Your task to perform on an android device: find which apps use the phone's location Image 0: 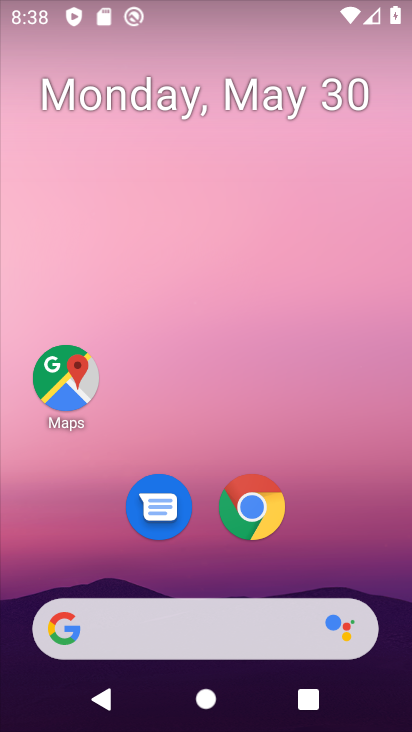
Step 0: drag from (303, 545) to (295, 62)
Your task to perform on an android device: find which apps use the phone's location Image 1: 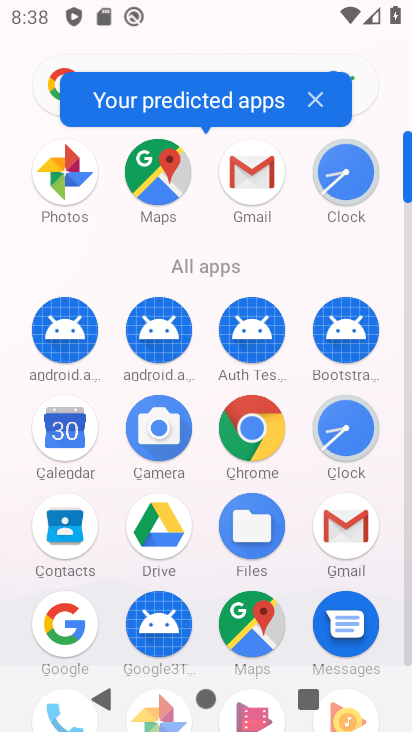
Step 1: drag from (202, 594) to (229, 356)
Your task to perform on an android device: find which apps use the phone's location Image 2: 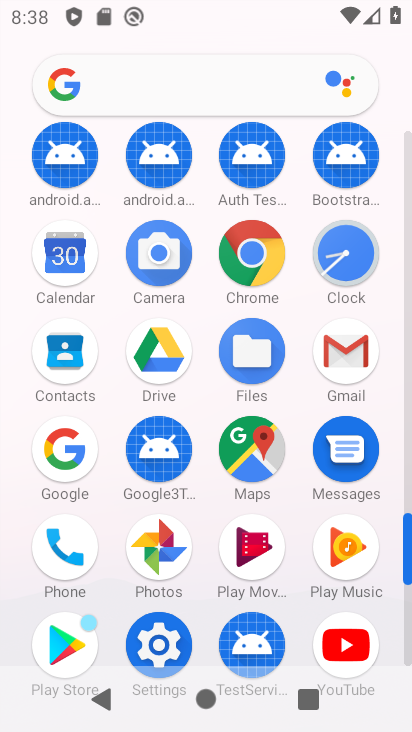
Step 2: click (151, 632)
Your task to perform on an android device: find which apps use the phone's location Image 3: 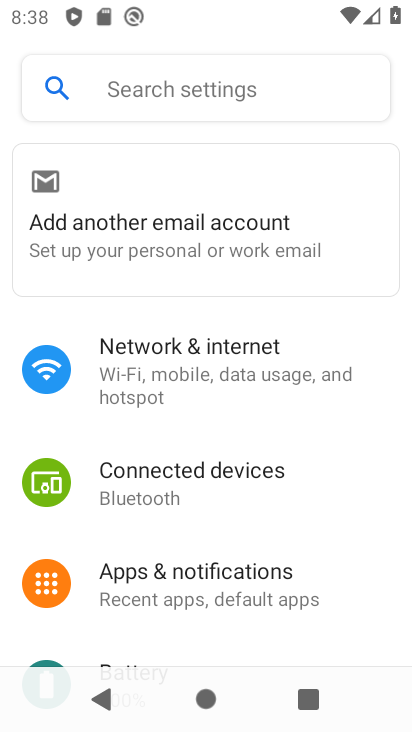
Step 3: drag from (184, 595) to (221, 416)
Your task to perform on an android device: find which apps use the phone's location Image 4: 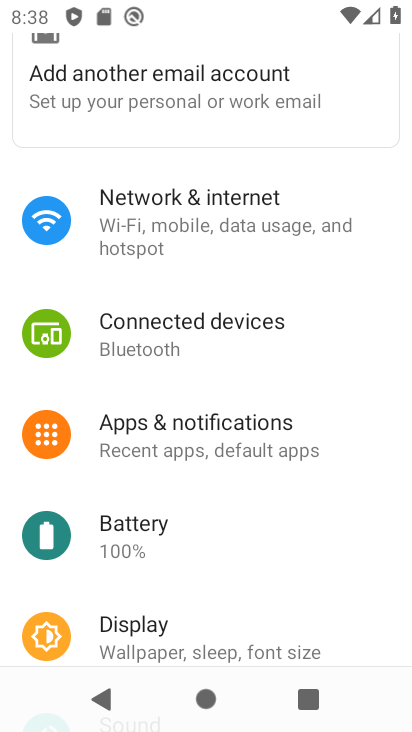
Step 4: drag from (186, 553) to (186, 286)
Your task to perform on an android device: find which apps use the phone's location Image 5: 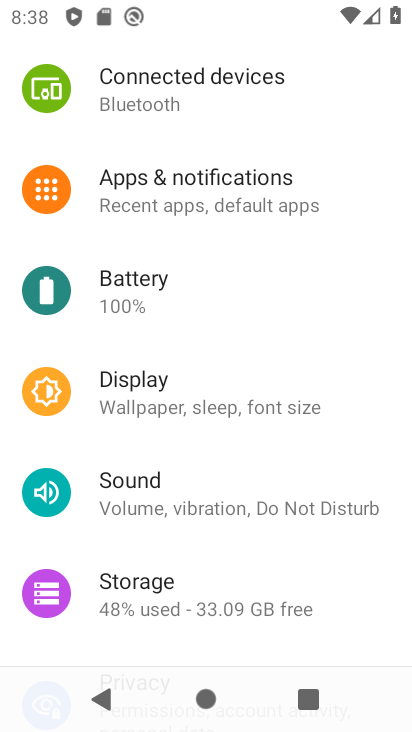
Step 5: drag from (177, 573) to (193, 396)
Your task to perform on an android device: find which apps use the phone's location Image 6: 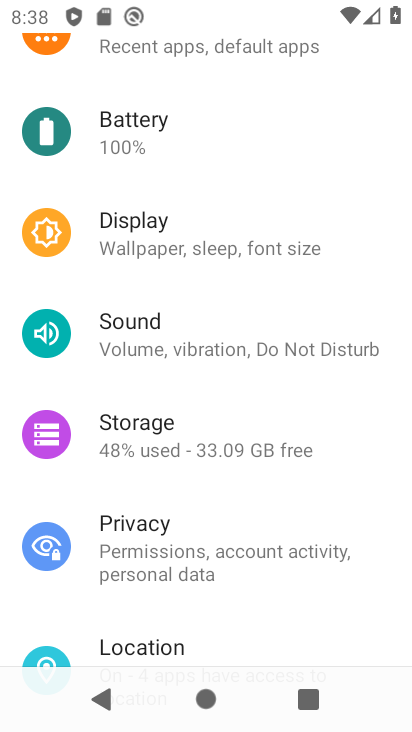
Step 6: drag from (164, 615) to (183, 410)
Your task to perform on an android device: find which apps use the phone's location Image 7: 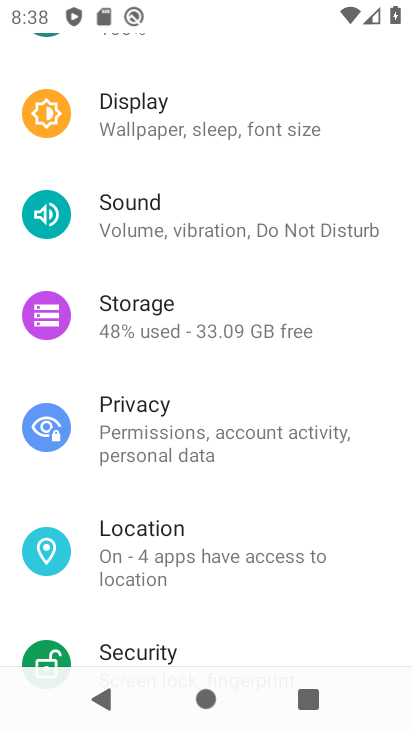
Step 7: click (140, 532)
Your task to perform on an android device: find which apps use the phone's location Image 8: 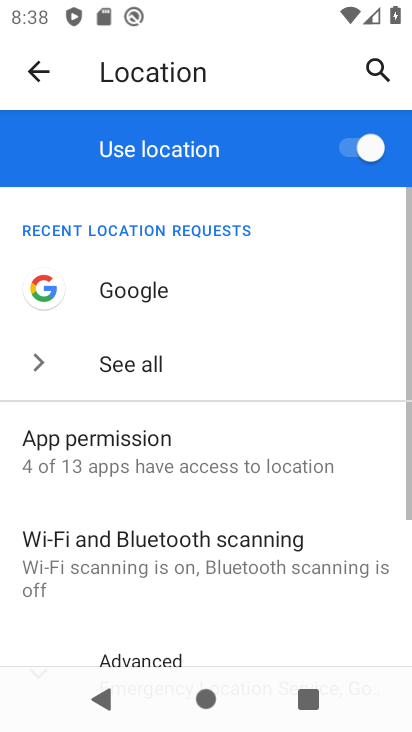
Step 8: click (107, 454)
Your task to perform on an android device: find which apps use the phone's location Image 9: 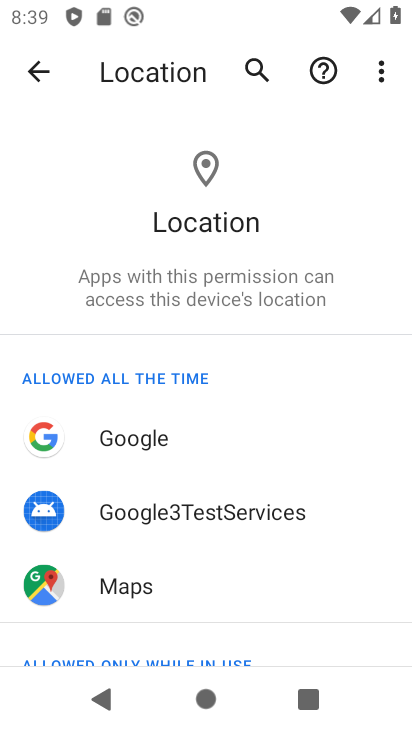
Step 9: task complete